Your task to perform on an android device: turn off airplane mode Image 0: 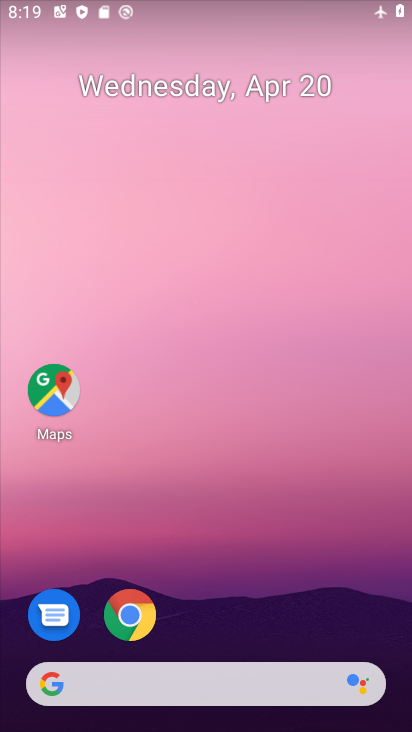
Step 0: drag from (242, 586) to (309, 36)
Your task to perform on an android device: turn off airplane mode Image 1: 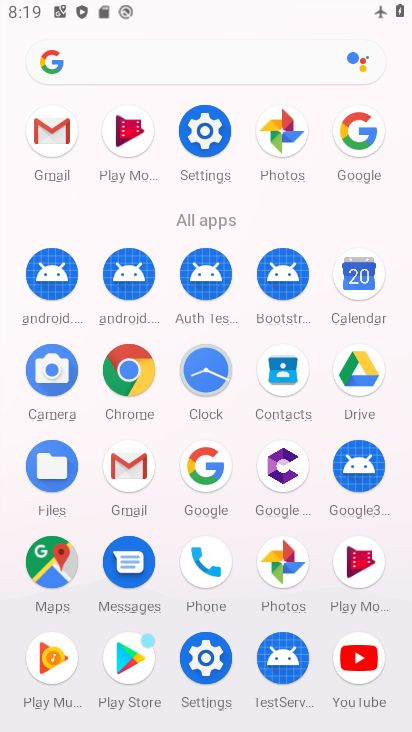
Step 1: click (205, 131)
Your task to perform on an android device: turn off airplane mode Image 2: 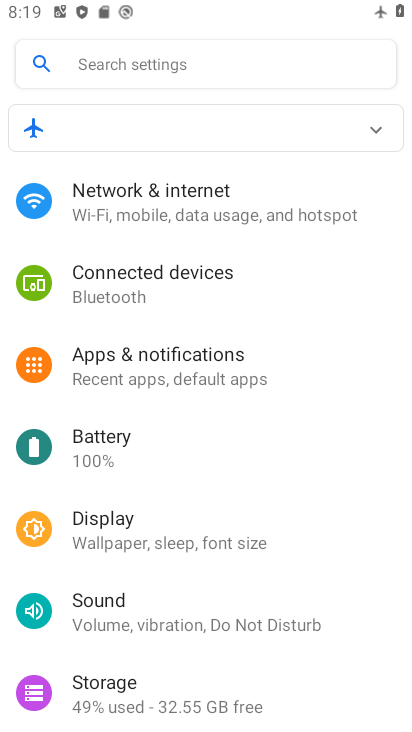
Step 2: click (205, 191)
Your task to perform on an android device: turn off airplane mode Image 3: 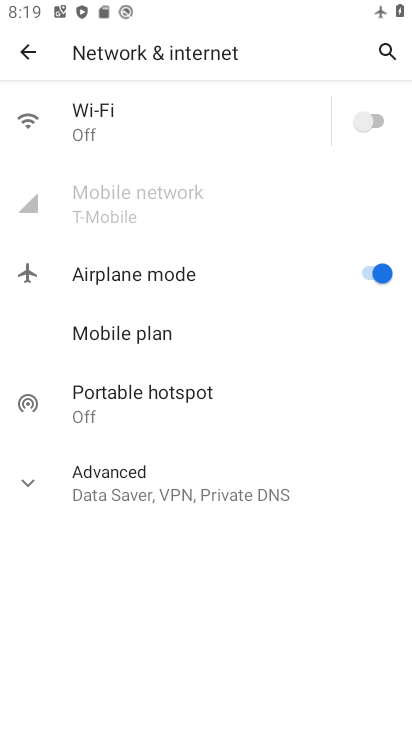
Step 3: click (386, 277)
Your task to perform on an android device: turn off airplane mode Image 4: 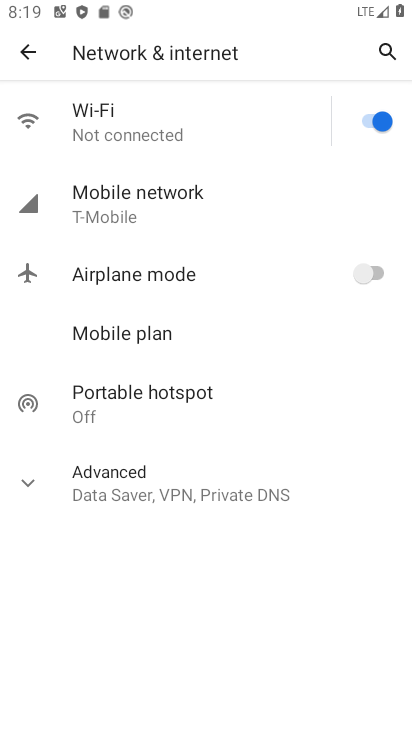
Step 4: task complete